Your task to perform on an android device: choose inbox layout in the gmail app Image 0: 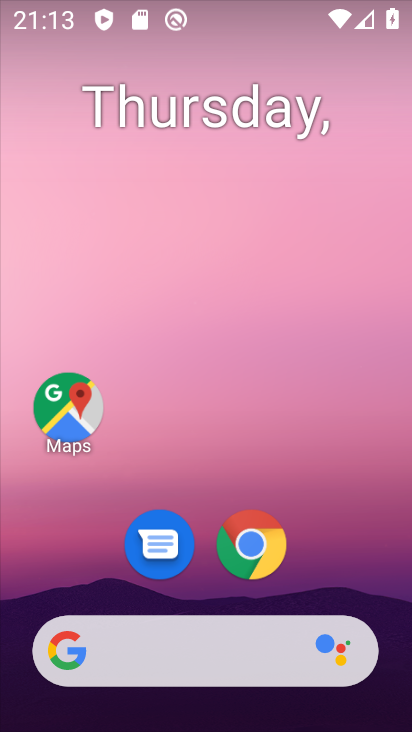
Step 0: drag from (269, 722) to (304, 107)
Your task to perform on an android device: choose inbox layout in the gmail app Image 1: 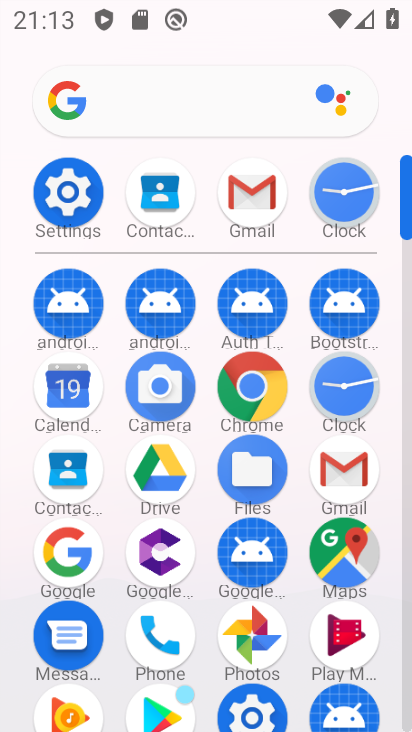
Step 1: click (244, 196)
Your task to perform on an android device: choose inbox layout in the gmail app Image 2: 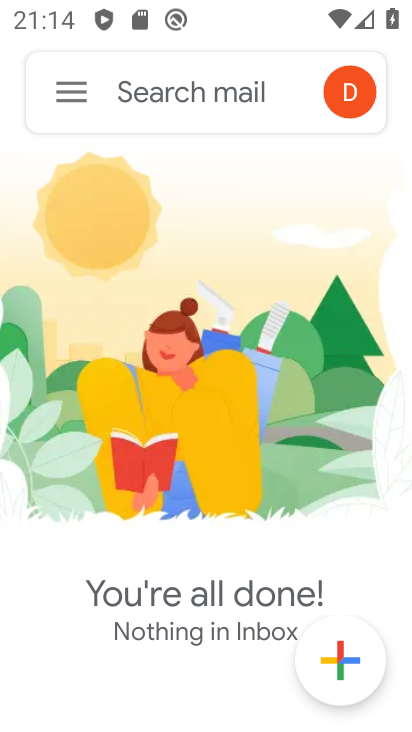
Step 2: click (70, 91)
Your task to perform on an android device: choose inbox layout in the gmail app Image 3: 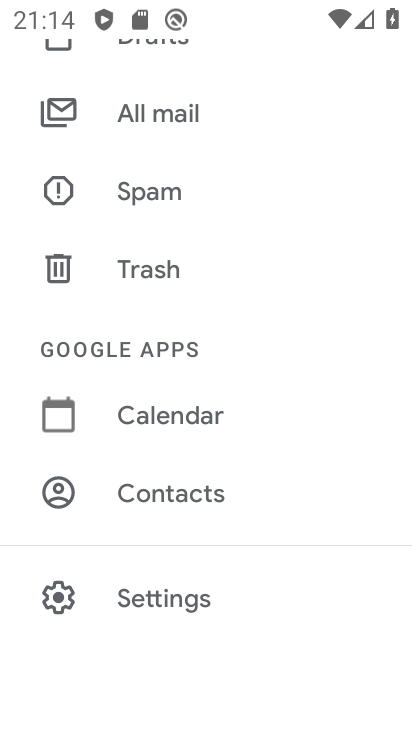
Step 3: click (190, 598)
Your task to perform on an android device: choose inbox layout in the gmail app Image 4: 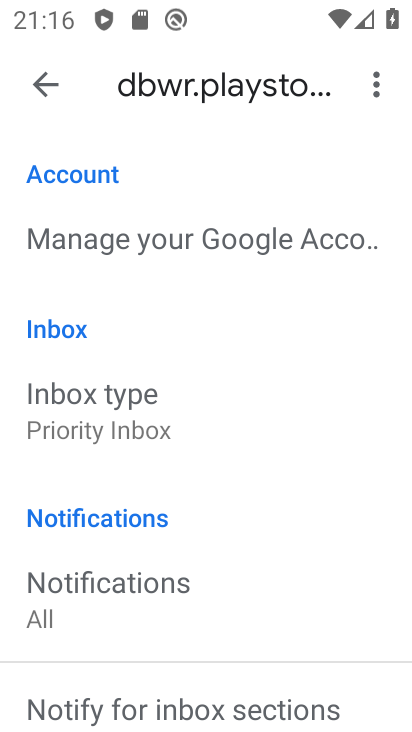
Step 4: click (87, 414)
Your task to perform on an android device: choose inbox layout in the gmail app Image 5: 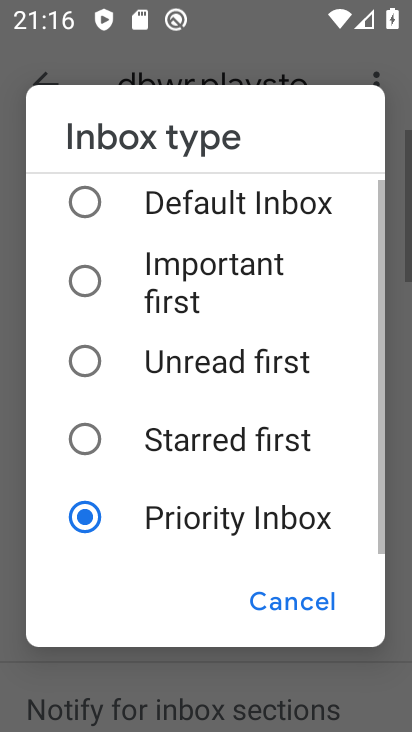
Step 5: click (188, 189)
Your task to perform on an android device: choose inbox layout in the gmail app Image 6: 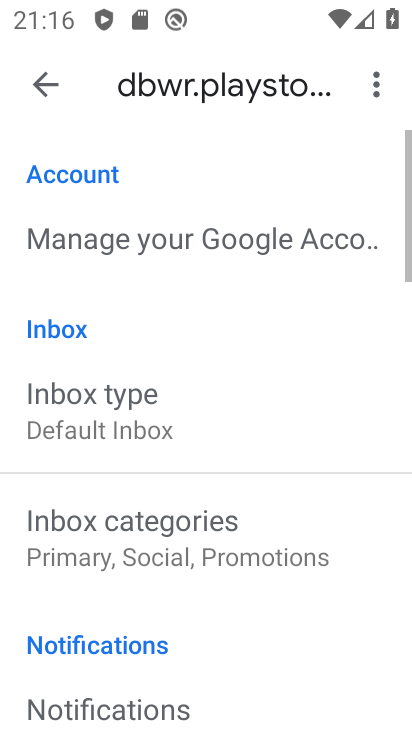
Step 6: task complete